Your task to perform on an android device: turn pop-ups off in chrome Image 0: 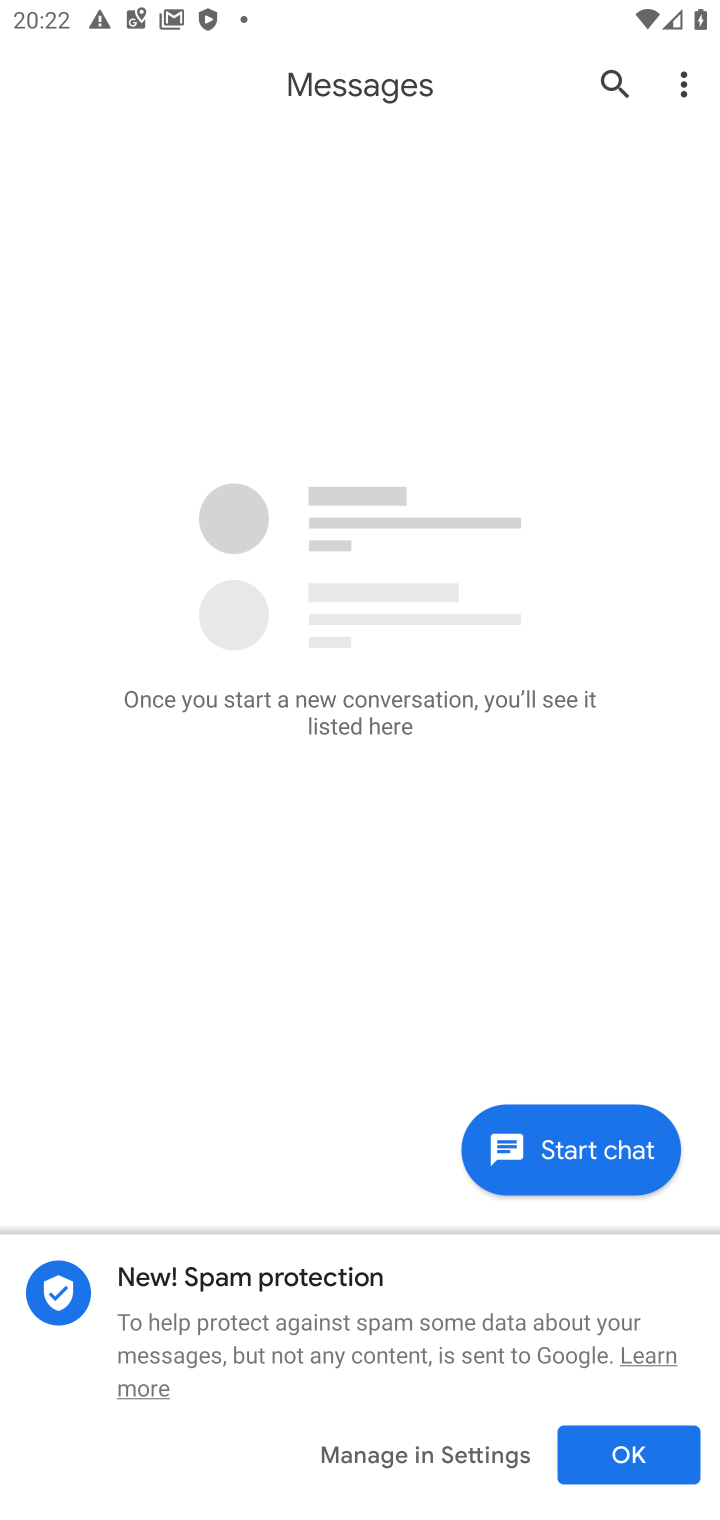
Step 0: press home button
Your task to perform on an android device: turn pop-ups off in chrome Image 1: 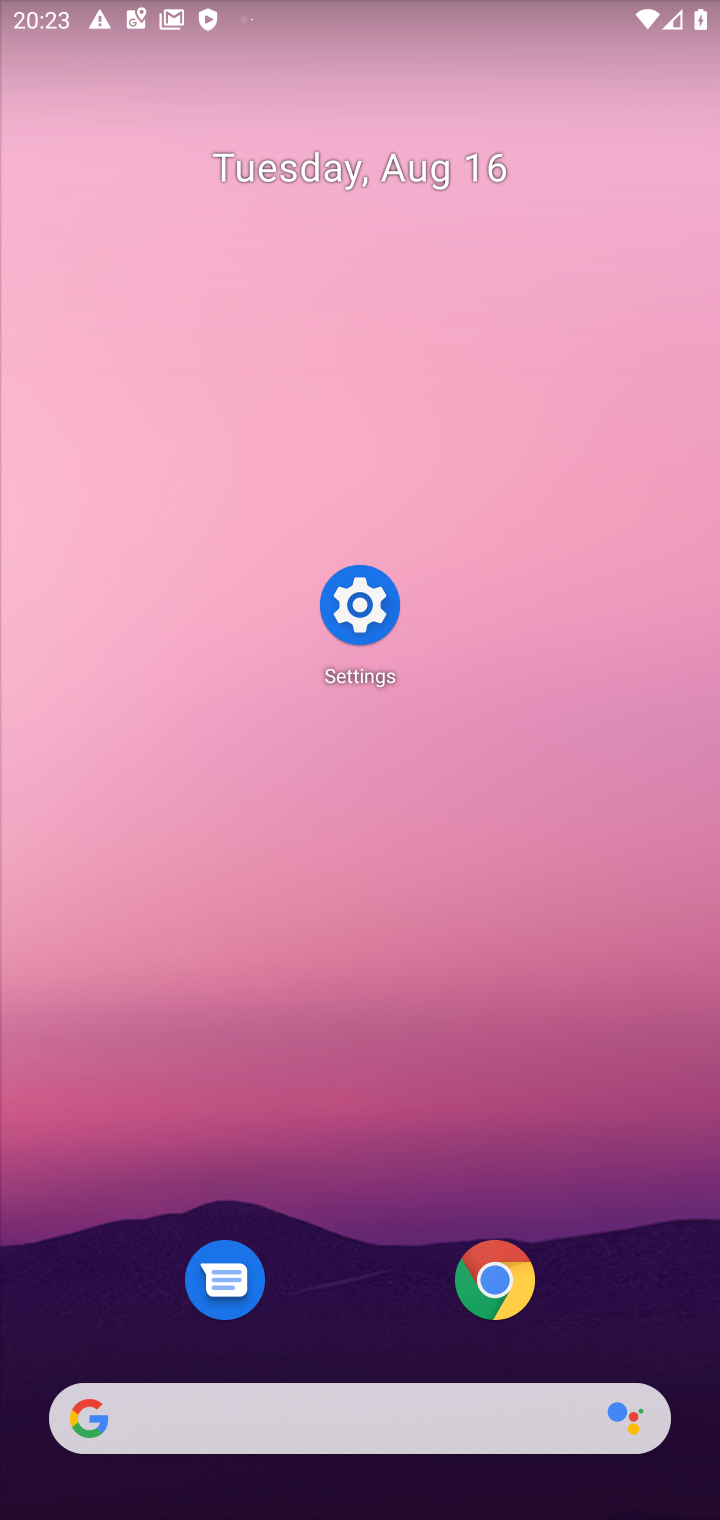
Step 1: drag from (312, 1334) to (299, 575)
Your task to perform on an android device: turn pop-ups off in chrome Image 2: 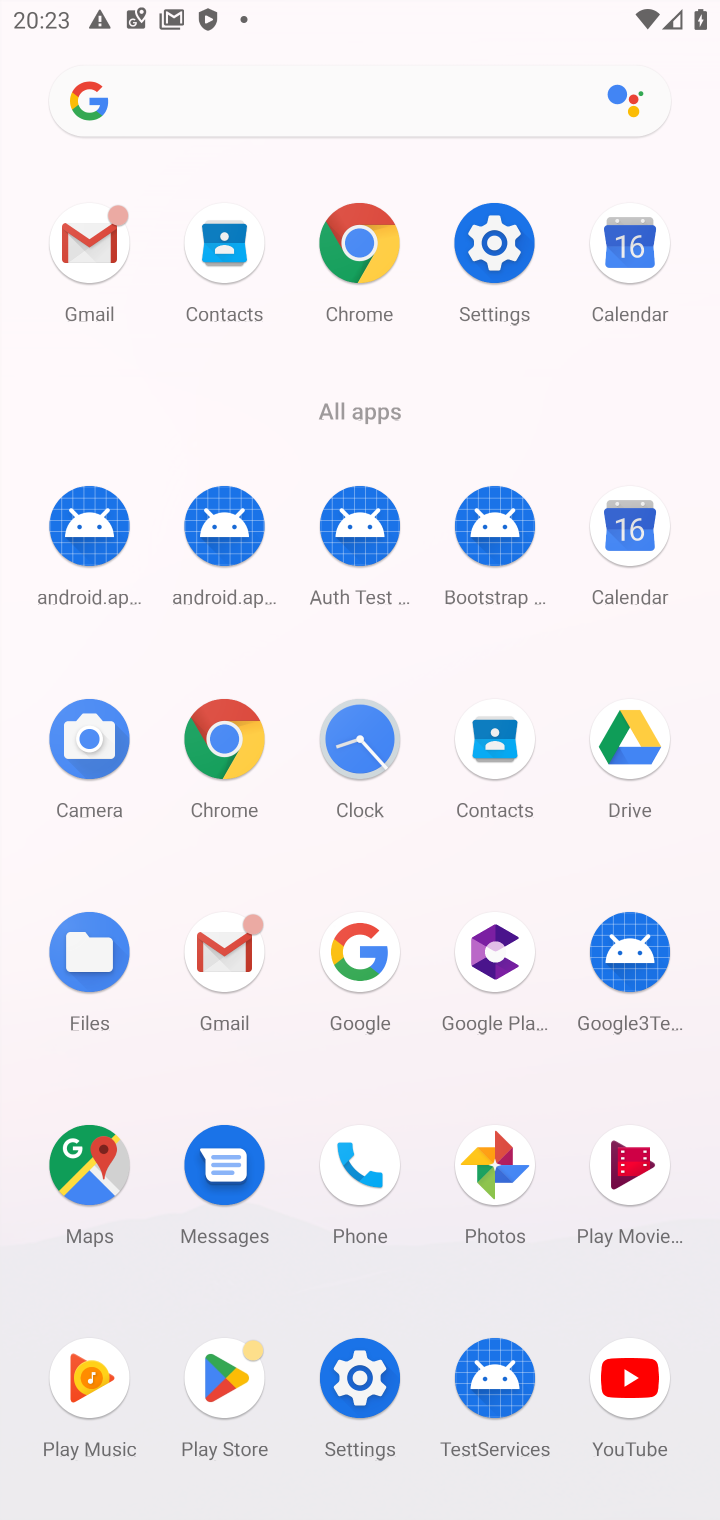
Step 2: click (237, 732)
Your task to perform on an android device: turn pop-ups off in chrome Image 3: 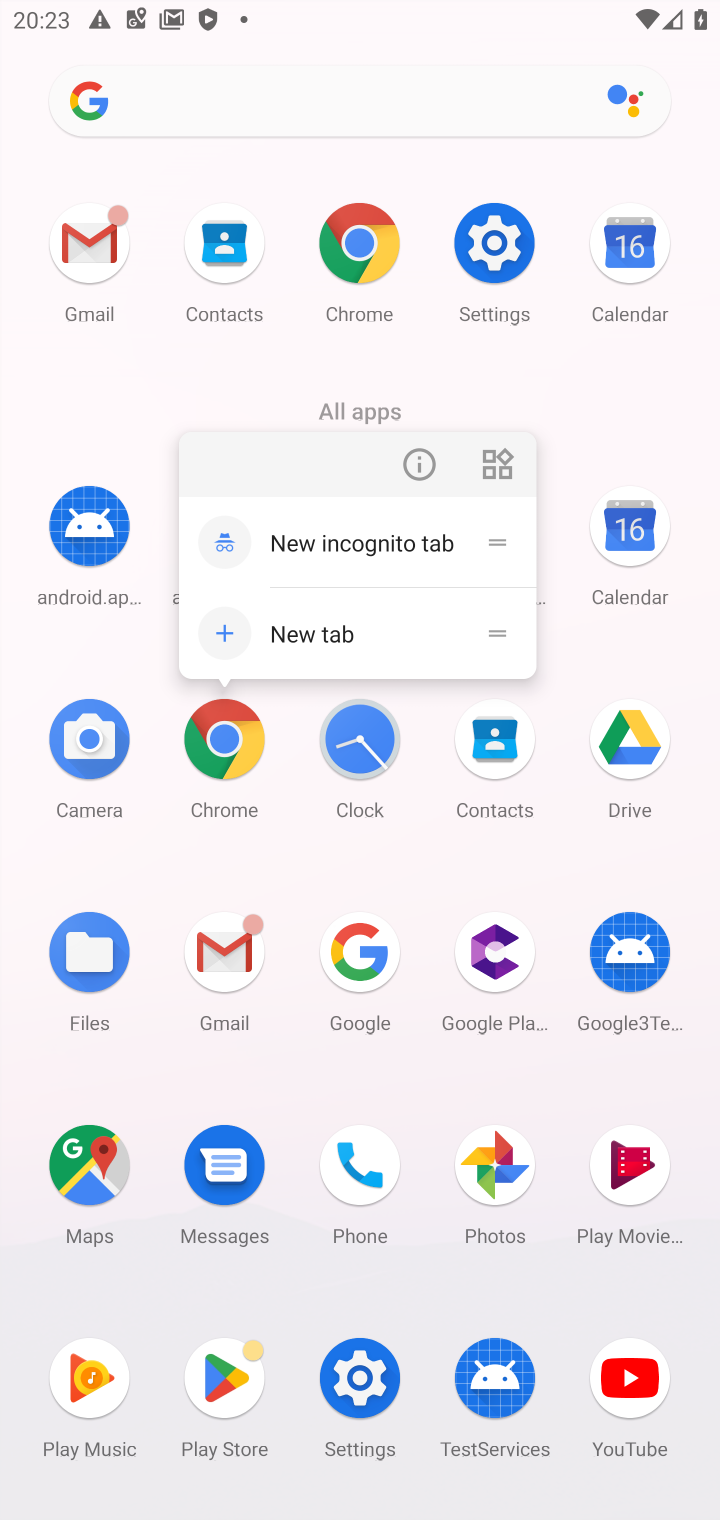
Step 3: click (245, 751)
Your task to perform on an android device: turn pop-ups off in chrome Image 4: 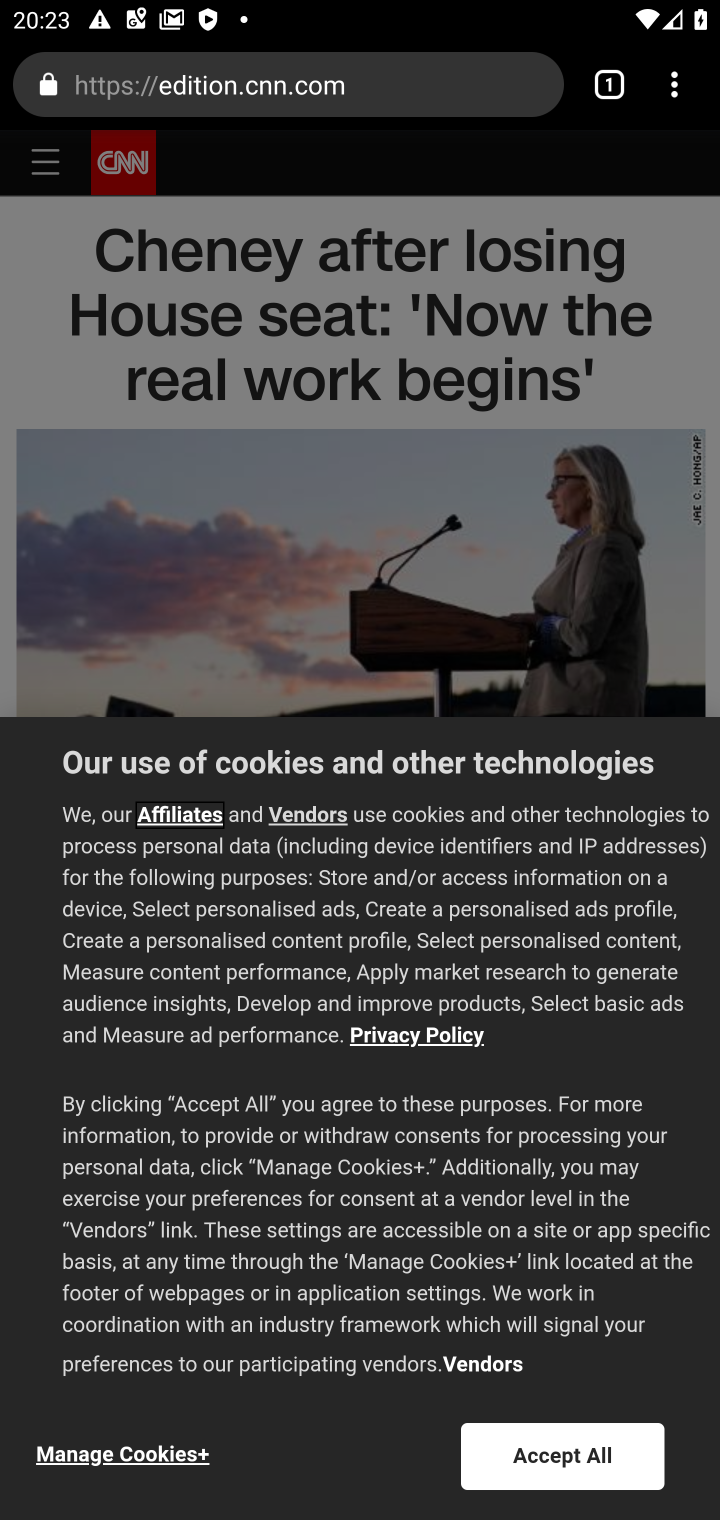
Step 4: click (678, 71)
Your task to perform on an android device: turn pop-ups off in chrome Image 5: 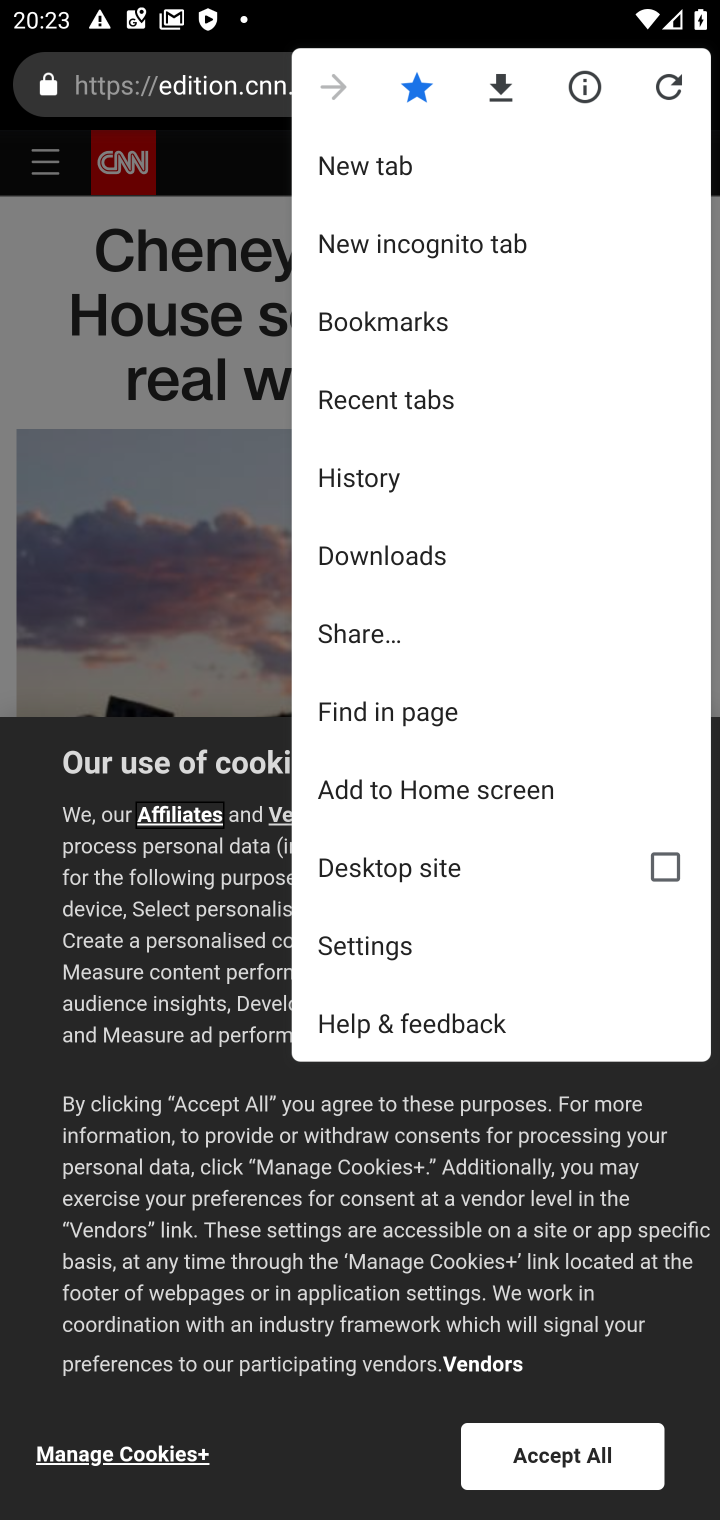
Step 5: click (400, 939)
Your task to perform on an android device: turn pop-ups off in chrome Image 6: 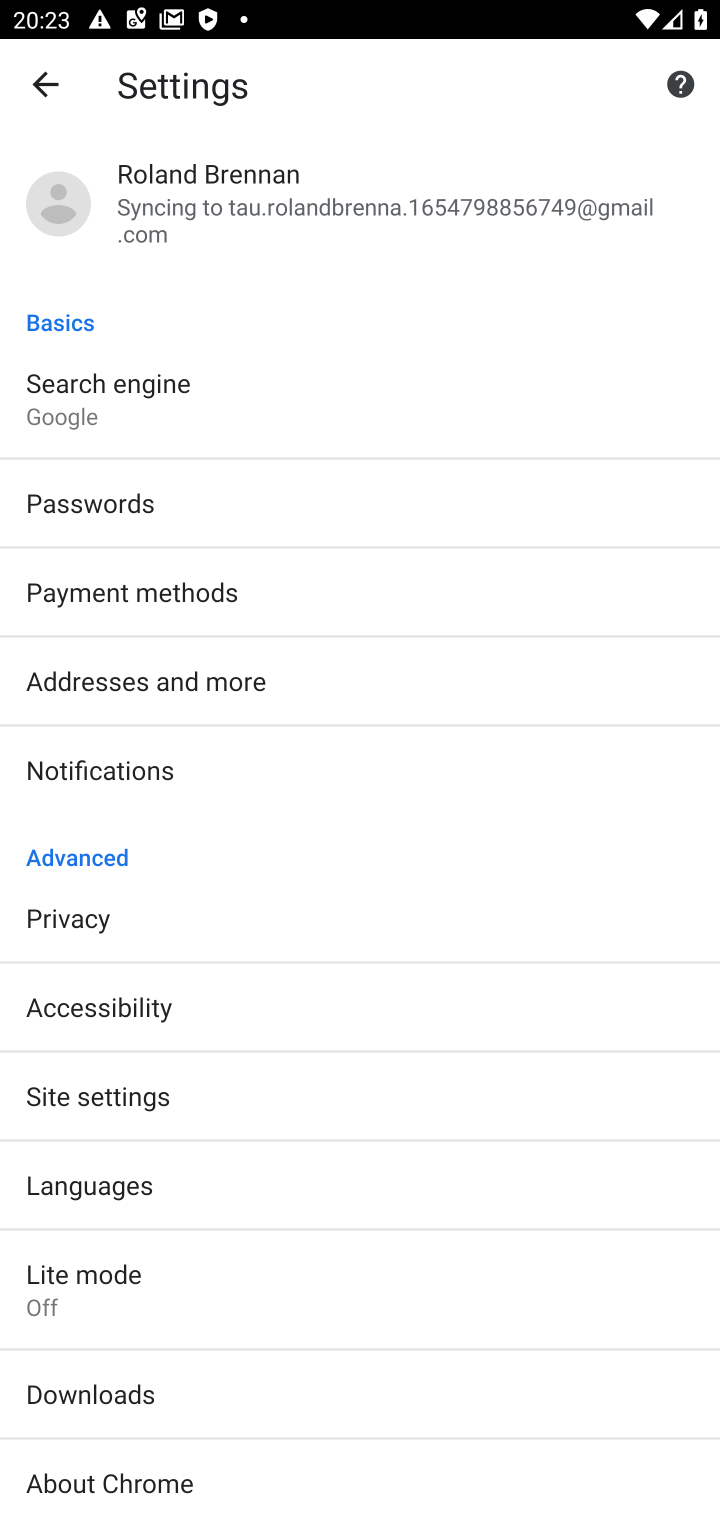
Step 6: click (155, 1101)
Your task to perform on an android device: turn pop-ups off in chrome Image 7: 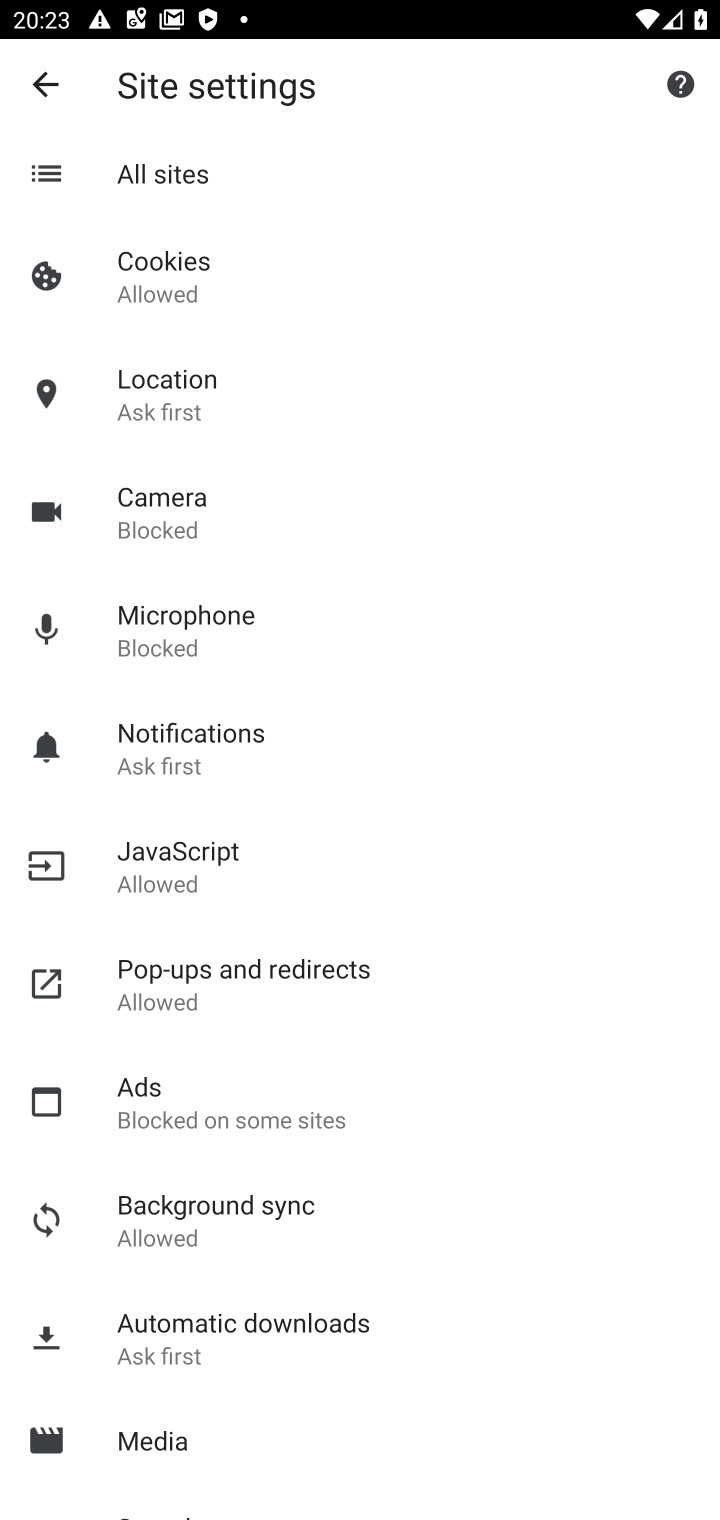
Step 7: click (143, 962)
Your task to perform on an android device: turn pop-ups off in chrome Image 8: 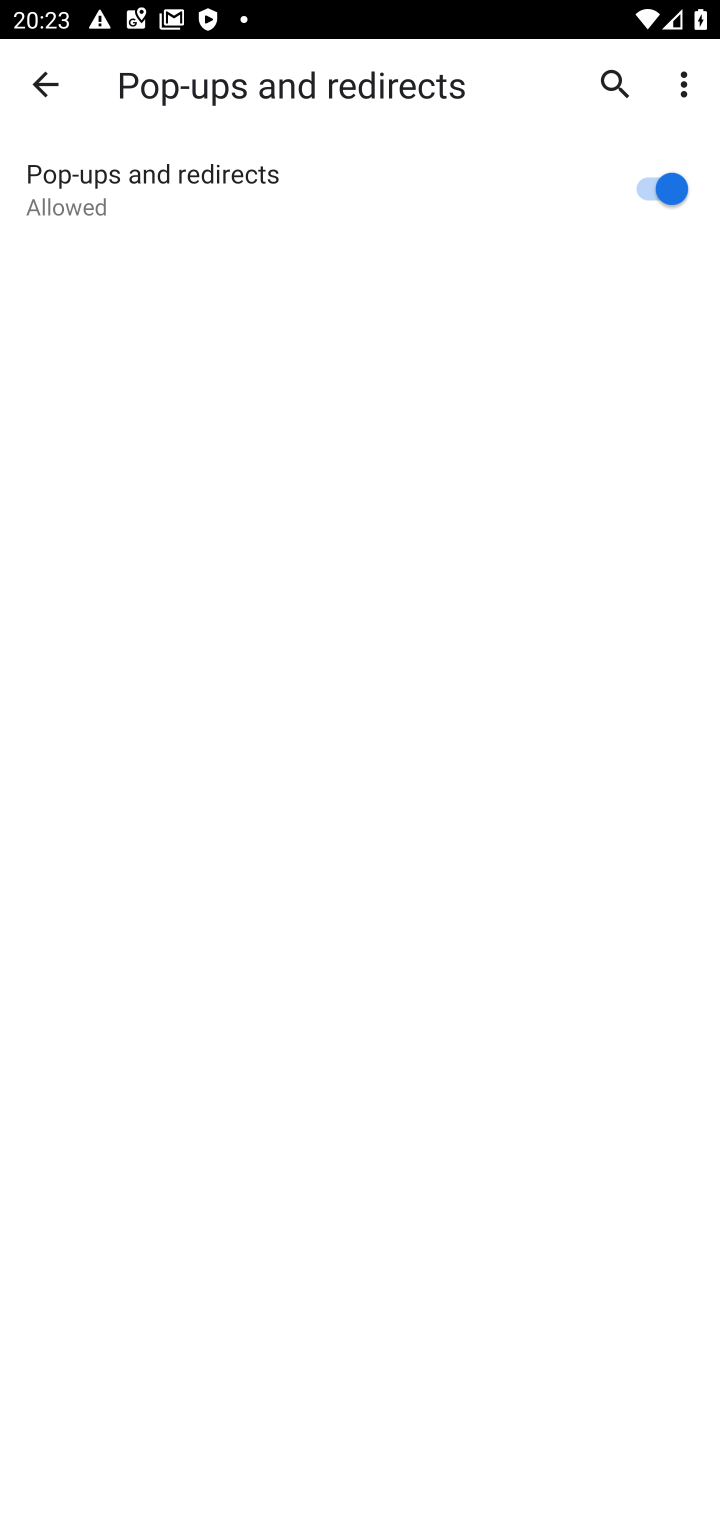
Step 8: click (605, 180)
Your task to perform on an android device: turn pop-ups off in chrome Image 9: 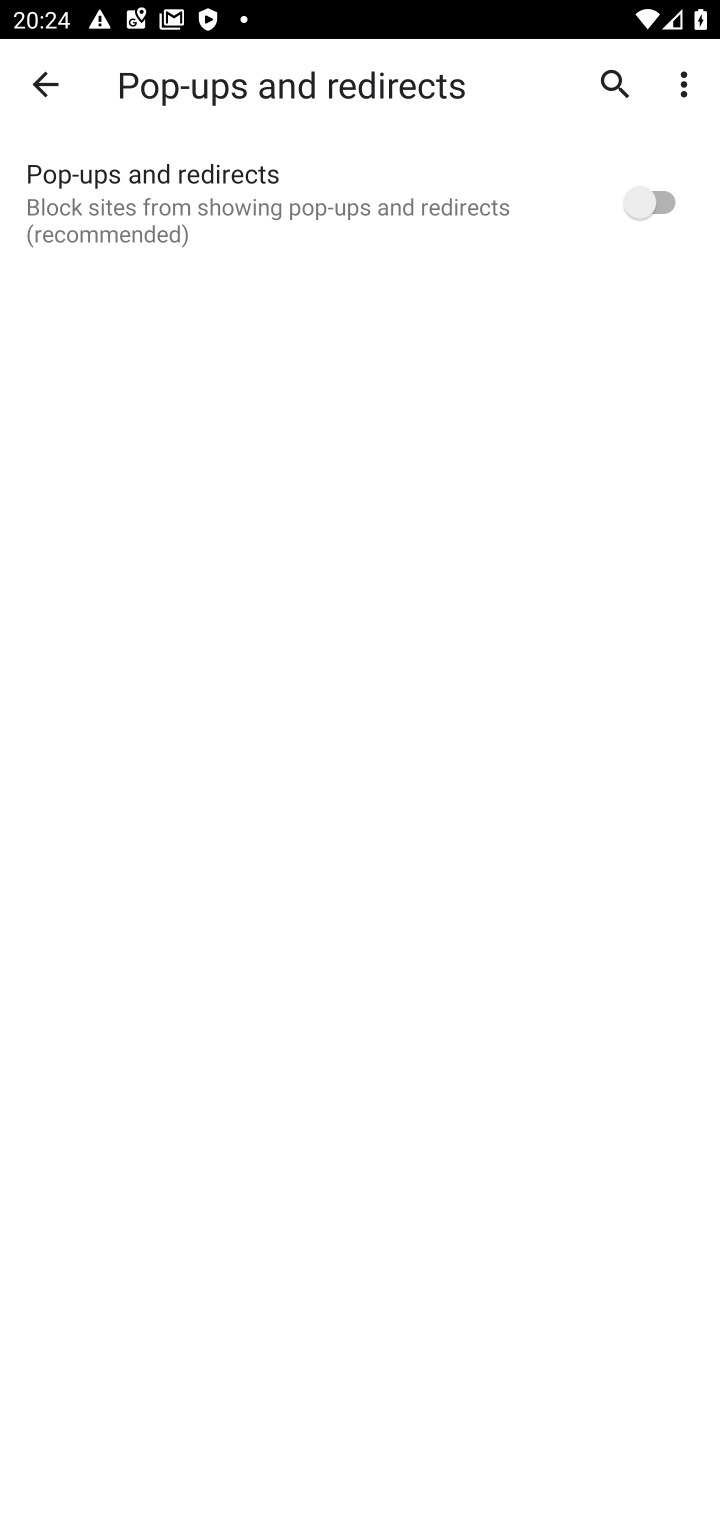
Step 9: task complete